Your task to perform on an android device: Search for a tv stand on Ikea Image 0: 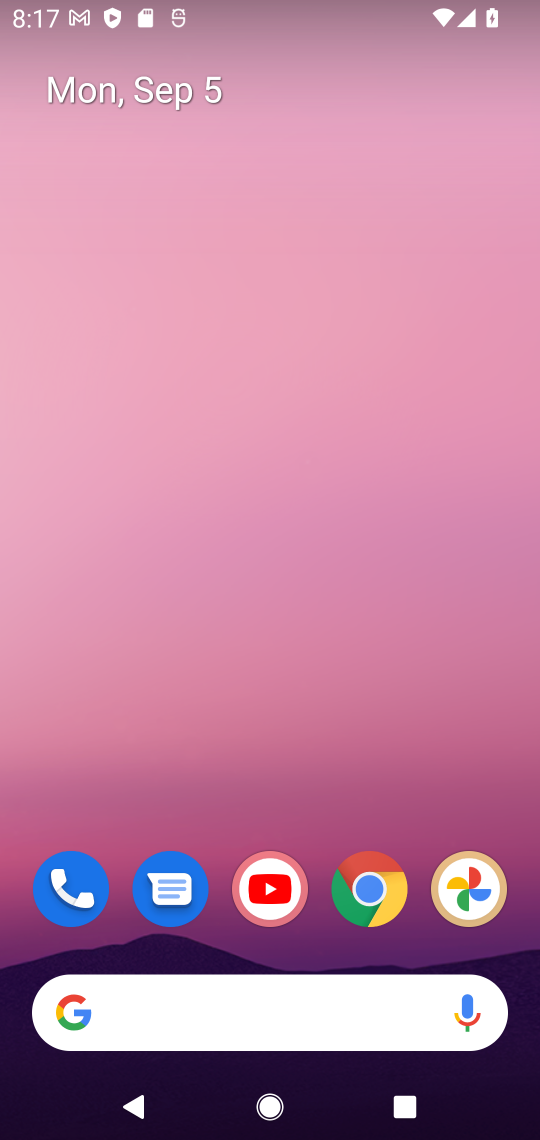
Step 0: click (242, 1002)
Your task to perform on an android device: Search for a tv stand on Ikea Image 1: 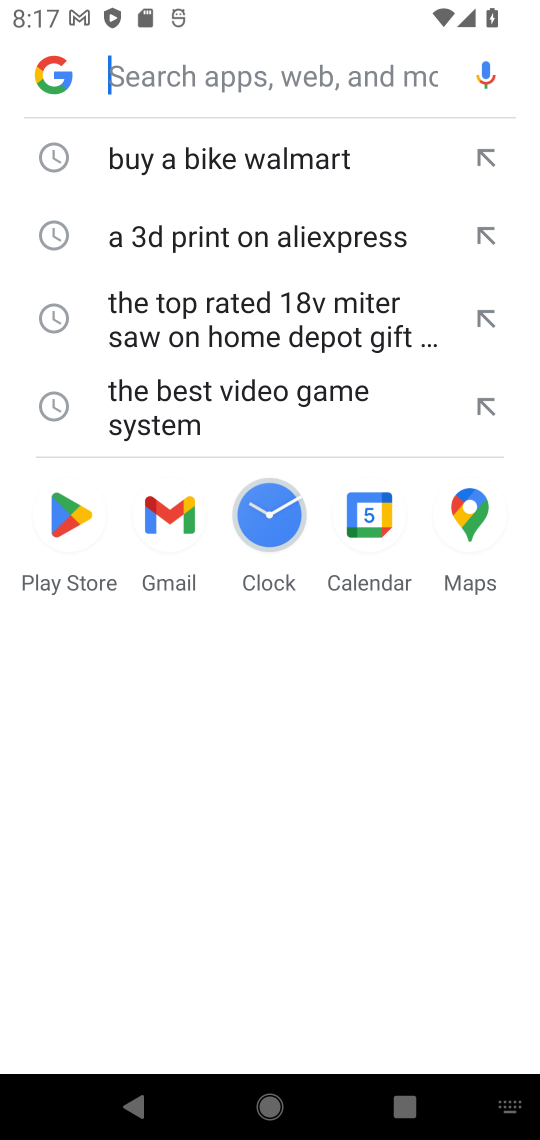
Step 1: type " a tv stand on Ikea"
Your task to perform on an android device: Search for a tv stand on Ikea Image 2: 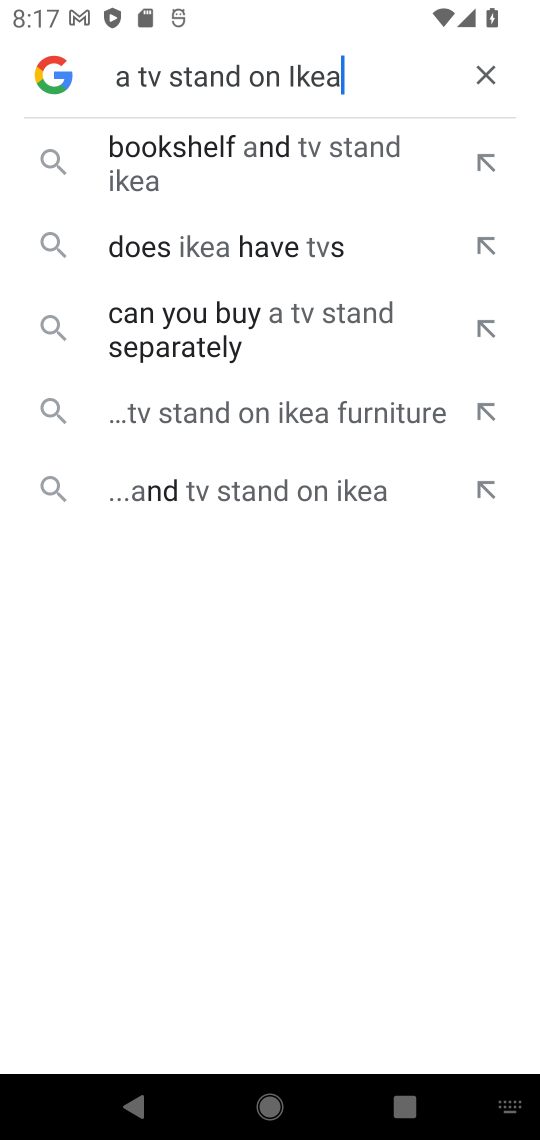
Step 2: click (168, 172)
Your task to perform on an android device: Search for a tv stand on Ikea Image 3: 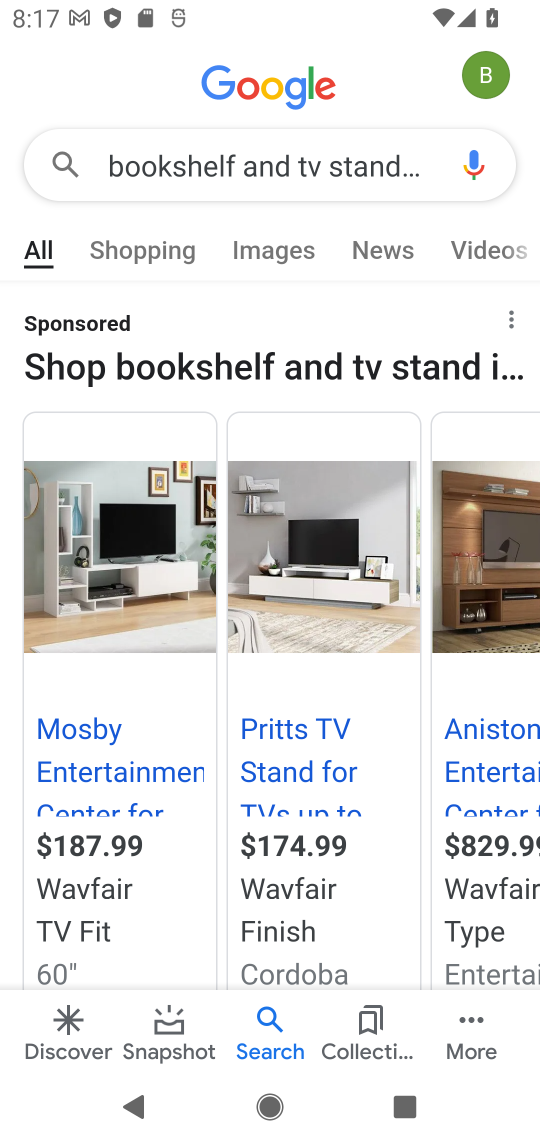
Step 3: task complete